Your task to perform on an android device: remove spam from my inbox in the gmail app Image 0: 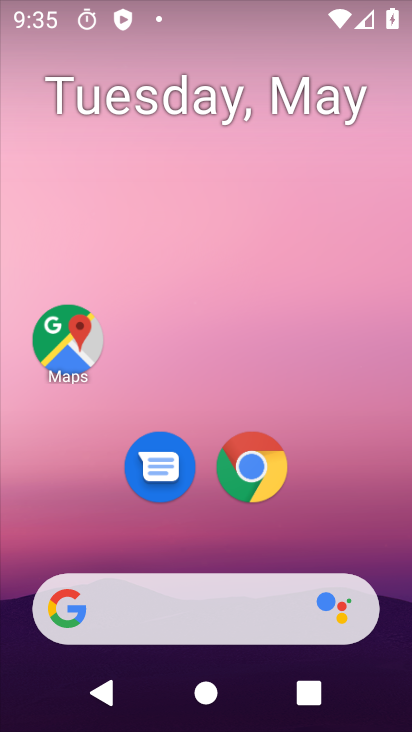
Step 0: drag from (343, 556) to (241, 54)
Your task to perform on an android device: remove spam from my inbox in the gmail app Image 1: 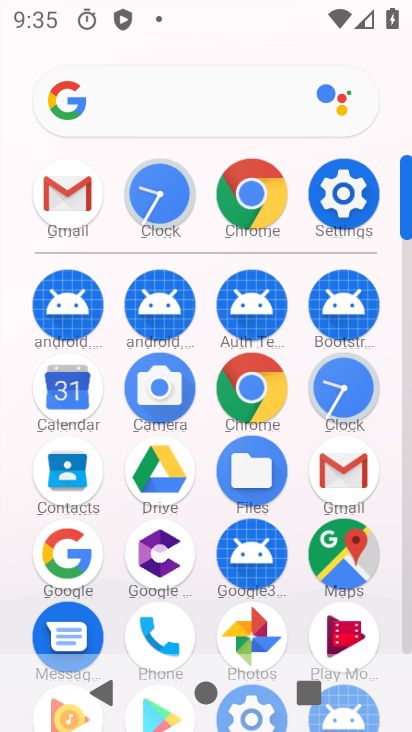
Step 1: drag from (4, 608) to (22, 191)
Your task to perform on an android device: remove spam from my inbox in the gmail app Image 2: 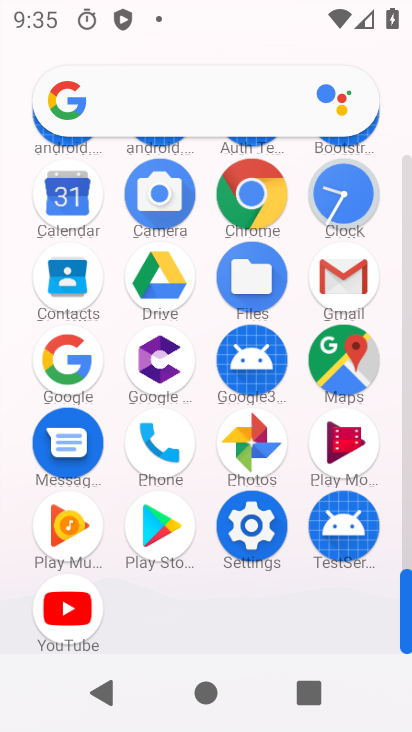
Step 2: click (338, 273)
Your task to perform on an android device: remove spam from my inbox in the gmail app Image 3: 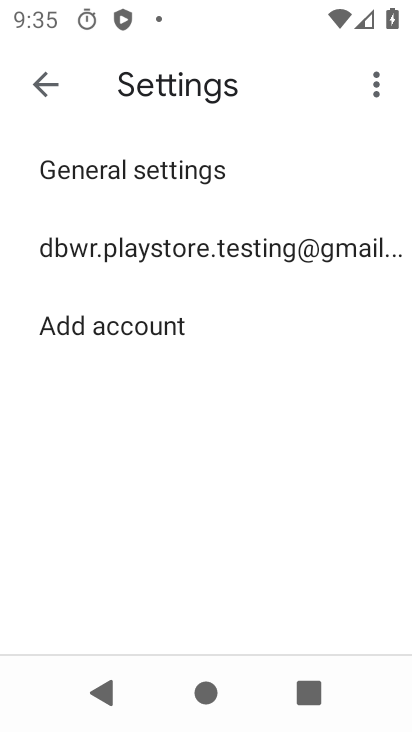
Step 3: click (48, 75)
Your task to perform on an android device: remove spam from my inbox in the gmail app Image 4: 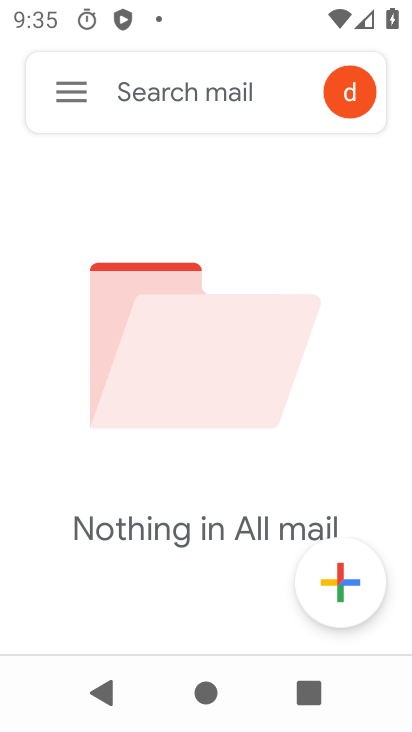
Step 4: click (86, 89)
Your task to perform on an android device: remove spam from my inbox in the gmail app Image 5: 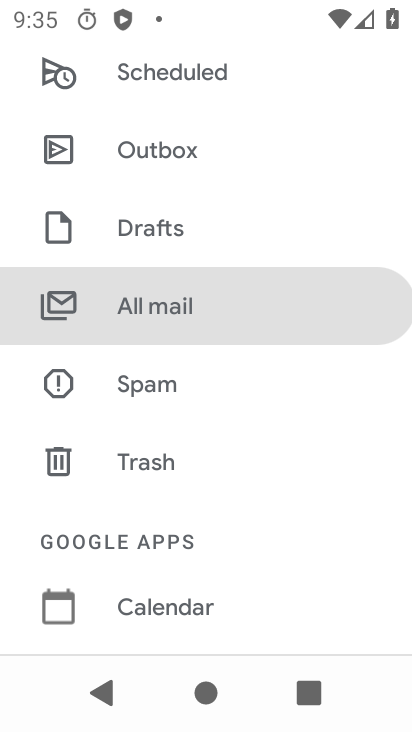
Step 5: drag from (210, 585) to (238, 256)
Your task to perform on an android device: remove spam from my inbox in the gmail app Image 6: 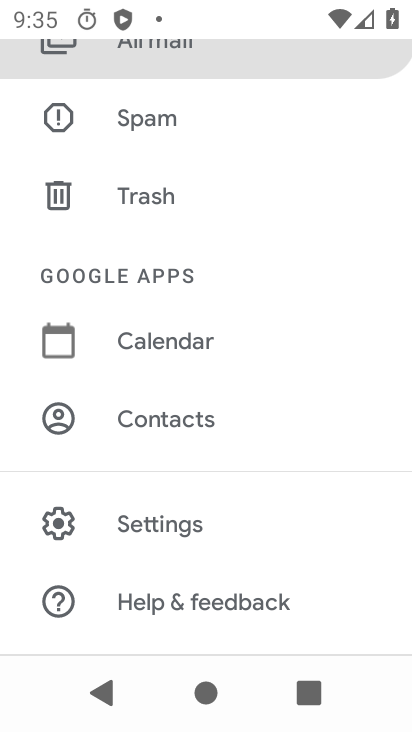
Step 6: click (149, 116)
Your task to perform on an android device: remove spam from my inbox in the gmail app Image 7: 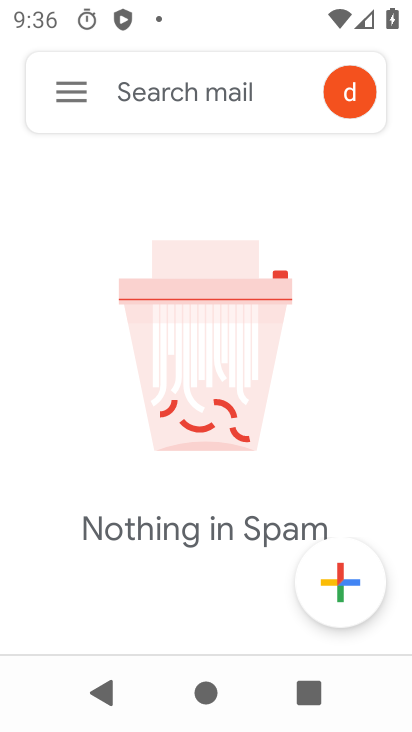
Step 7: task complete